Your task to perform on an android device: Open wifi settings Image 0: 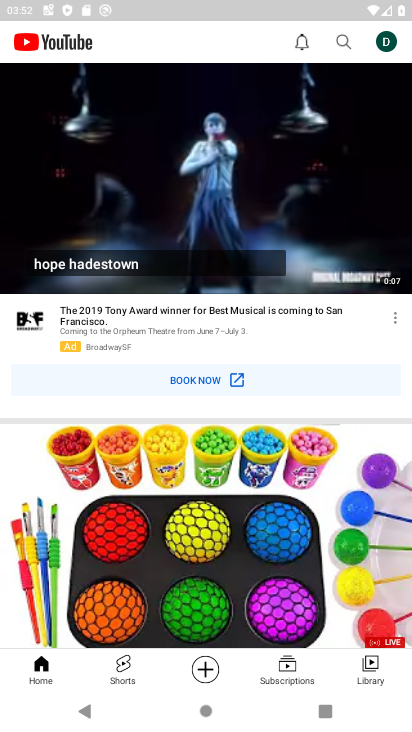
Step 0: press home button
Your task to perform on an android device: Open wifi settings Image 1: 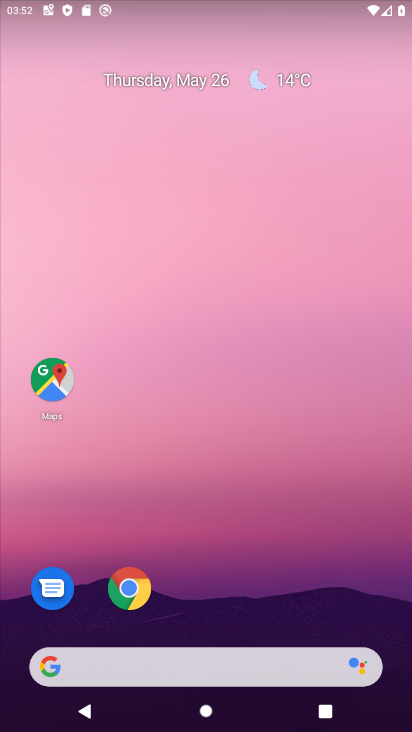
Step 1: drag from (279, 588) to (192, 138)
Your task to perform on an android device: Open wifi settings Image 2: 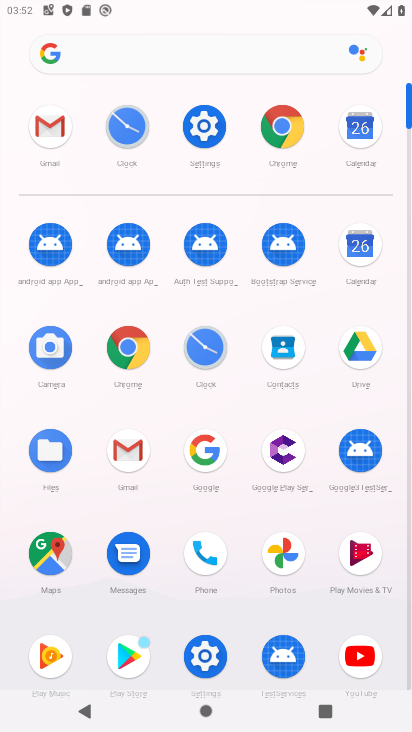
Step 2: click (225, 139)
Your task to perform on an android device: Open wifi settings Image 3: 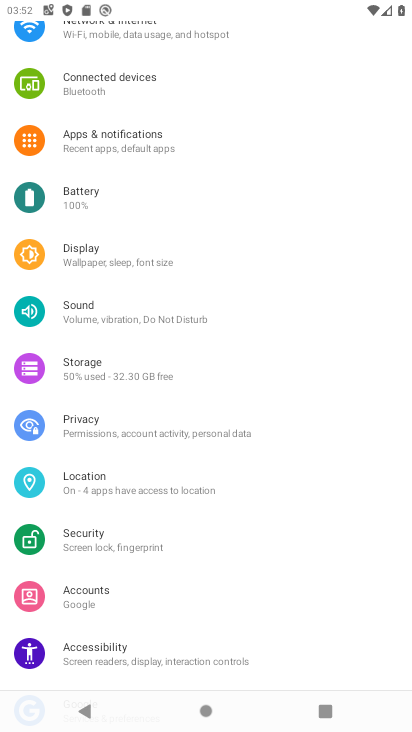
Step 3: drag from (151, 102) to (158, 388)
Your task to perform on an android device: Open wifi settings Image 4: 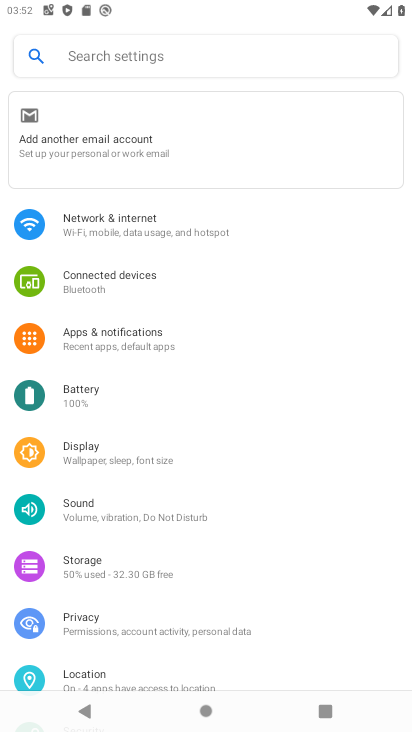
Step 4: click (161, 212)
Your task to perform on an android device: Open wifi settings Image 5: 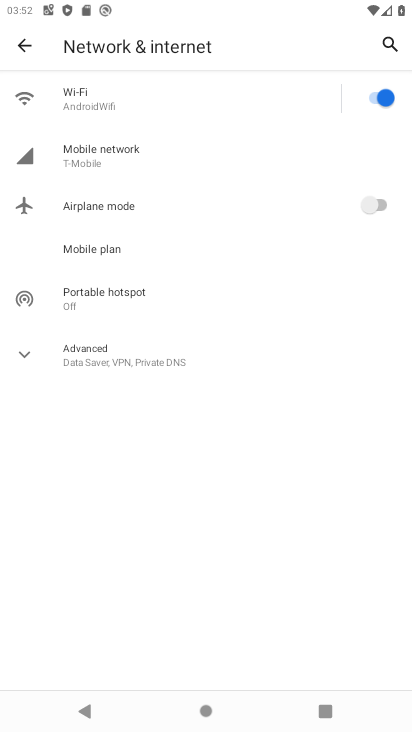
Step 5: task complete